Your task to perform on an android device: Go to display settings Image 0: 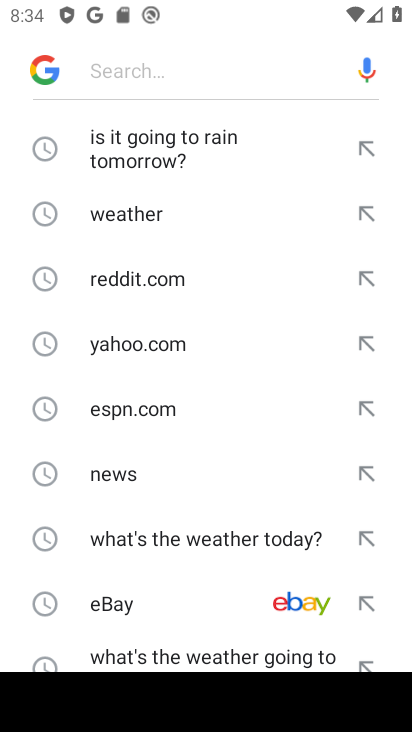
Step 0: press home button
Your task to perform on an android device: Go to display settings Image 1: 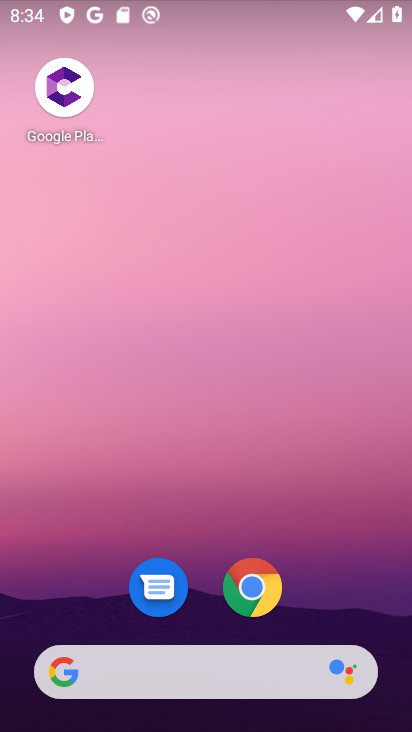
Step 1: drag from (361, 581) to (166, 12)
Your task to perform on an android device: Go to display settings Image 2: 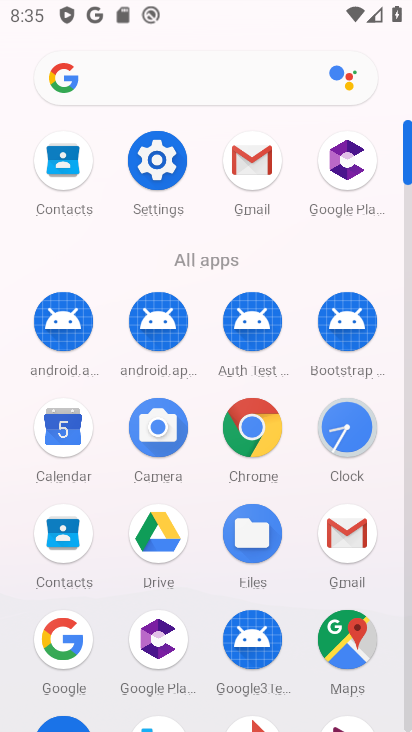
Step 2: click (162, 146)
Your task to perform on an android device: Go to display settings Image 3: 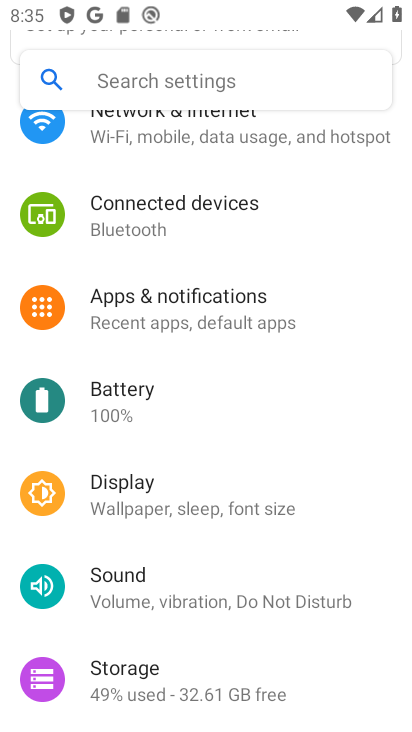
Step 3: click (190, 344)
Your task to perform on an android device: Go to display settings Image 4: 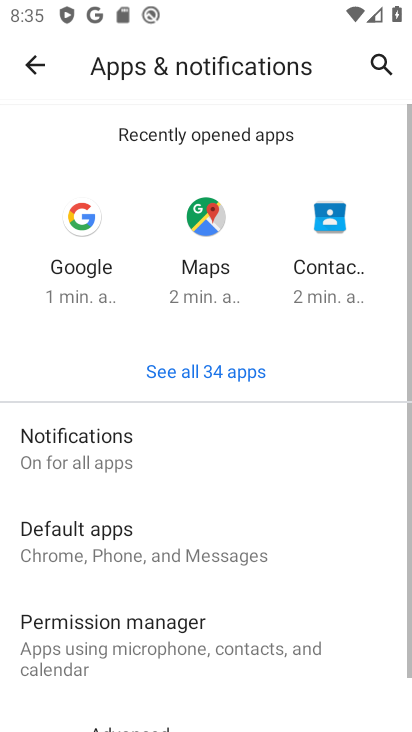
Step 4: click (39, 69)
Your task to perform on an android device: Go to display settings Image 5: 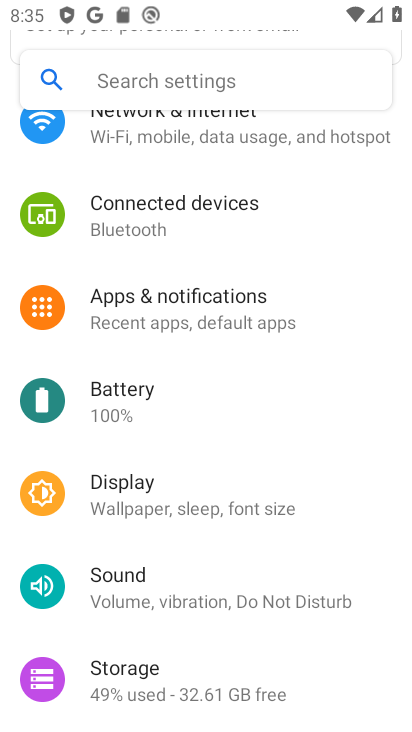
Step 5: click (115, 494)
Your task to perform on an android device: Go to display settings Image 6: 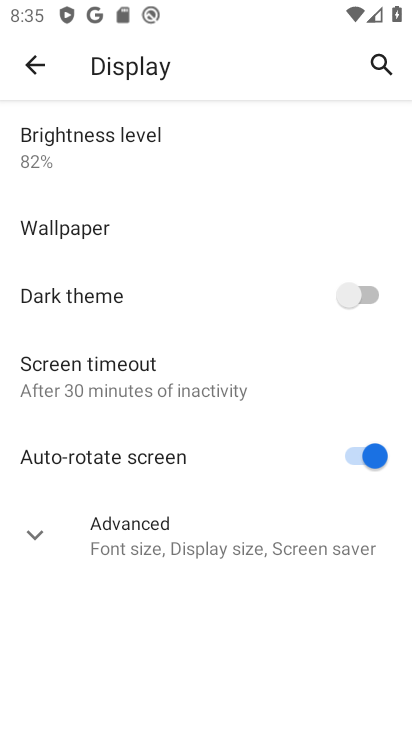
Step 6: click (347, 558)
Your task to perform on an android device: Go to display settings Image 7: 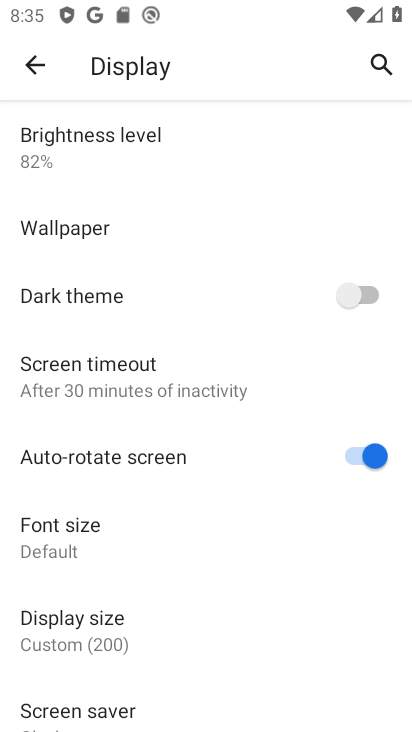
Step 7: task complete